Your task to perform on an android device: Search for "panasonic triple a" on costco, select the first entry, and add it to the cart. Image 0: 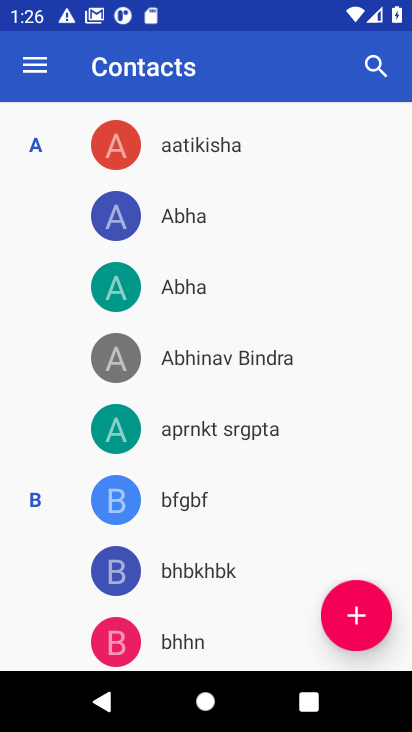
Step 0: press home button
Your task to perform on an android device: Search for "panasonic triple a" on costco, select the first entry, and add it to the cart. Image 1: 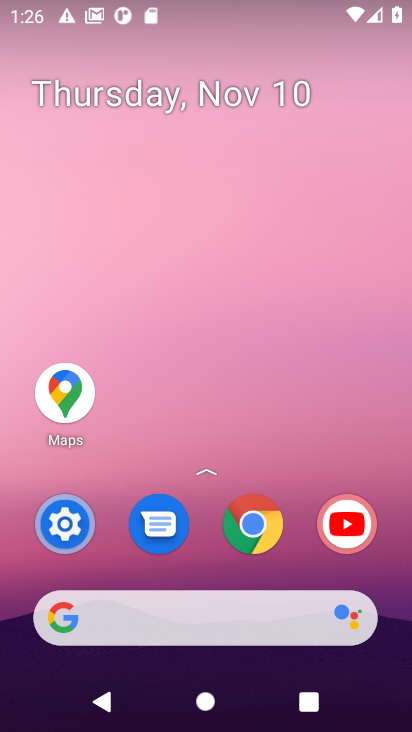
Step 1: click (261, 522)
Your task to perform on an android device: Search for "panasonic triple a" on costco, select the first entry, and add it to the cart. Image 2: 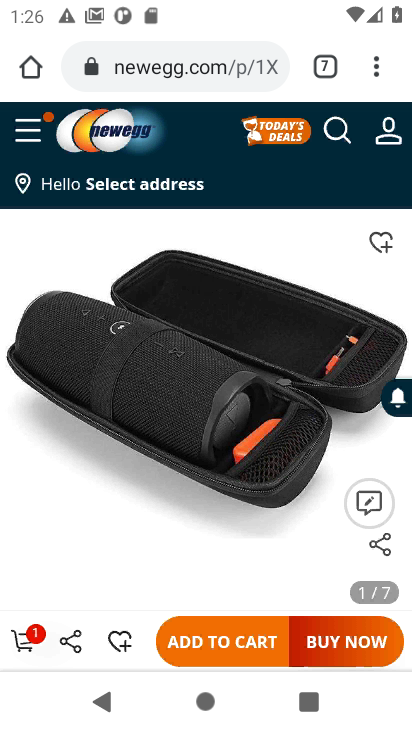
Step 2: click (329, 68)
Your task to perform on an android device: Search for "panasonic triple a" on costco, select the first entry, and add it to the cart. Image 3: 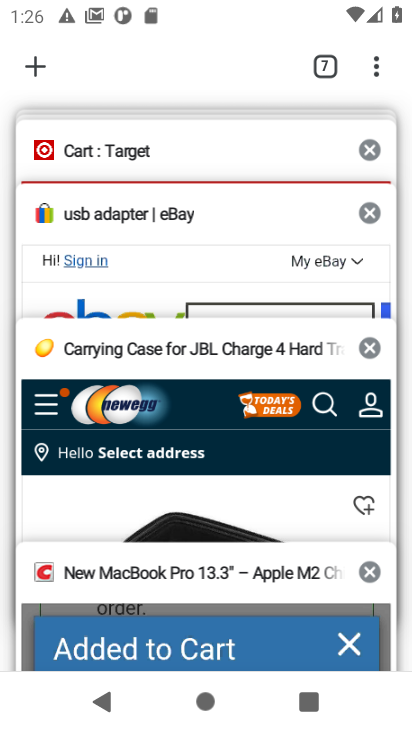
Step 3: click (196, 571)
Your task to perform on an android device: Search for "panasonic triple a" on costco, select the first entry, and add it to the cart. Image 4: 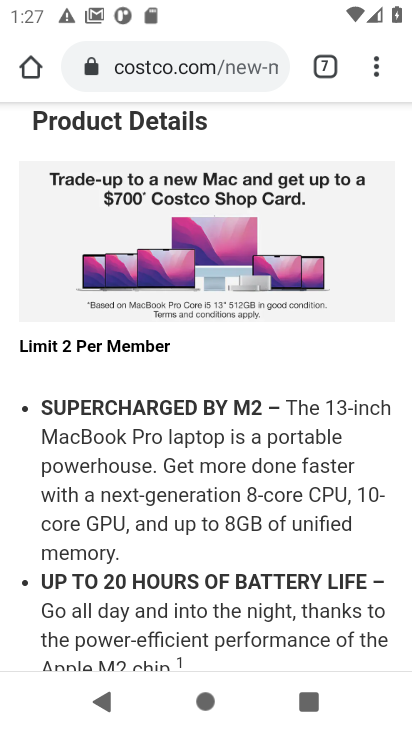
Step 4: drag from (243, 120) to (167, 420)
Your task to perform on an android device: Search for "panasonic triple a" on costco, select the first entry, and add it to the cart. Image 5: 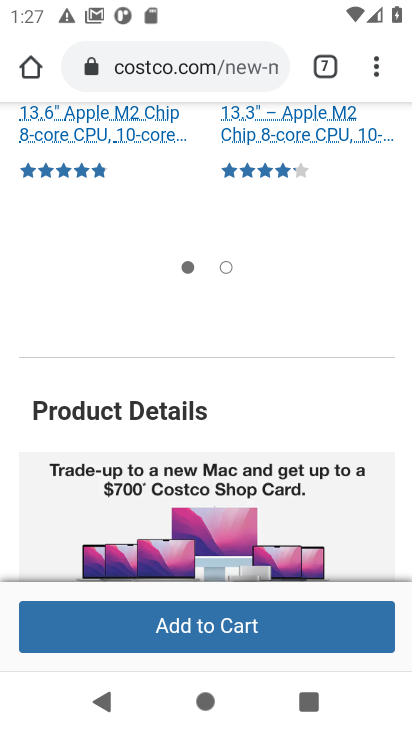
Step 5: drag from (164, 192) to (97, 490)
Your task to perform on an android device: Search for "panasonic triple a" on costco, select the first entry, and add it to the cart. Image 6: 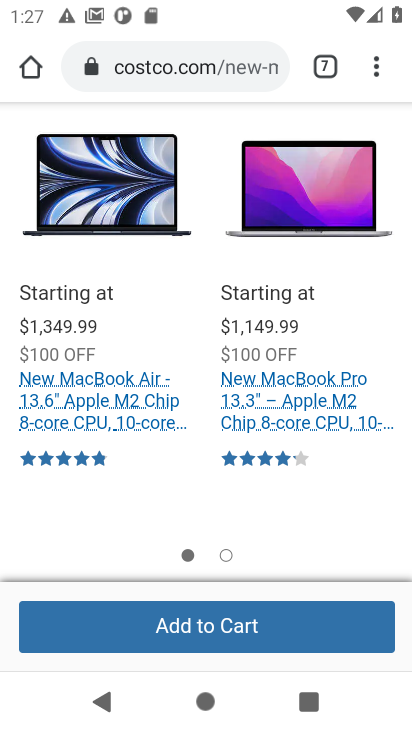
Step 6: drag from (210, 177) to (143, 534)
Your task to perform on an android device: Search for "panasonic triple a" on costco, select the first entry, and add it to the cart. Image 7: 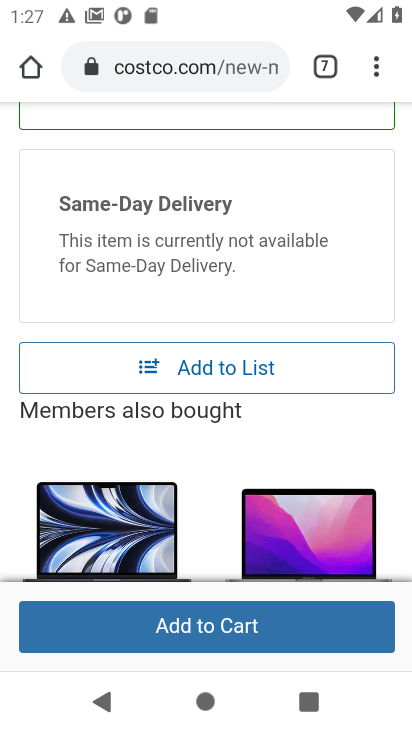
Step 7: drag from (257, 165) to (197, 408)
Your task to perform on an android device: Search for "panasonic triple a" on costco, select the first entry, and add it to the cart. Image 8: 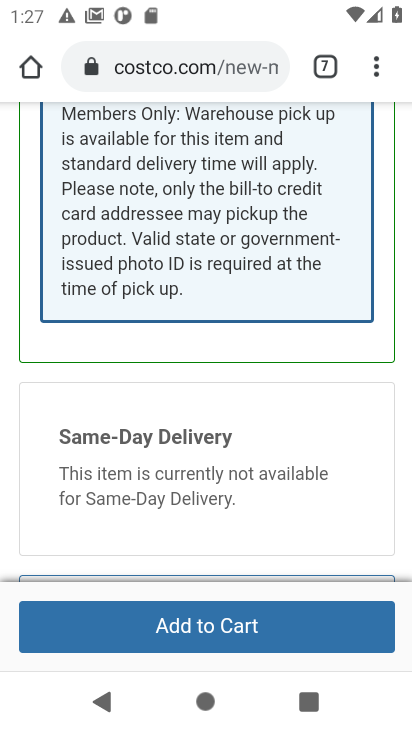
Step 8: drag from (381, 186) to (259, 720)
Your task to perform on an android device: Search for "panasonic triple a" on costco, select the first entry, and add it to the cart. Image 9: 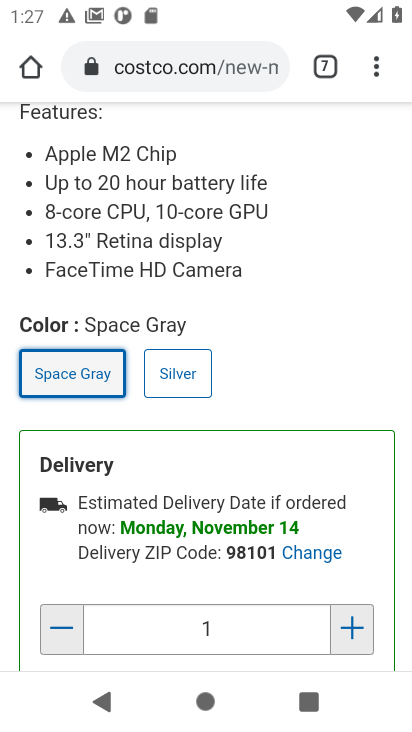
Step 9: drag from (335, 195) to (322, 721)
Your task to perform on an android device: Search for "panasonic triple a" on costco, select the first entry, and add it to the cart. Image 10: 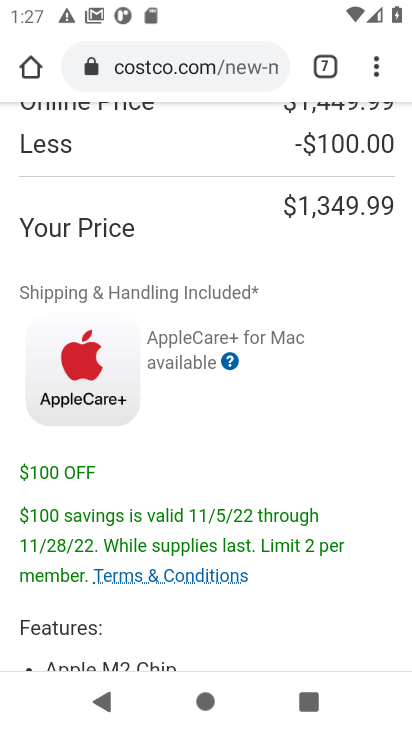
Step 10: drag from (228, 143) to (250, 500)
Your task to perform on an android device: Search for "panasonic triple a" on costco, select the first entry, and add it to the cart. Image 11: 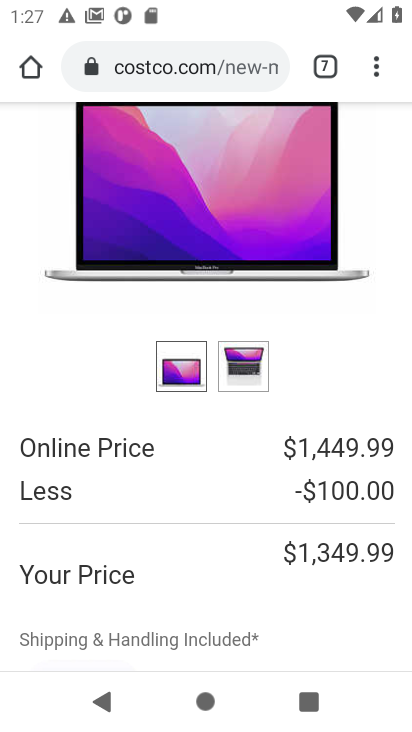
Step 11: drag from (363, 164) to (318, 681)
Your task to perform on an android device: Search for "panasonic triple a" on costco, select the first entry, and add it to the cart. Image 12: 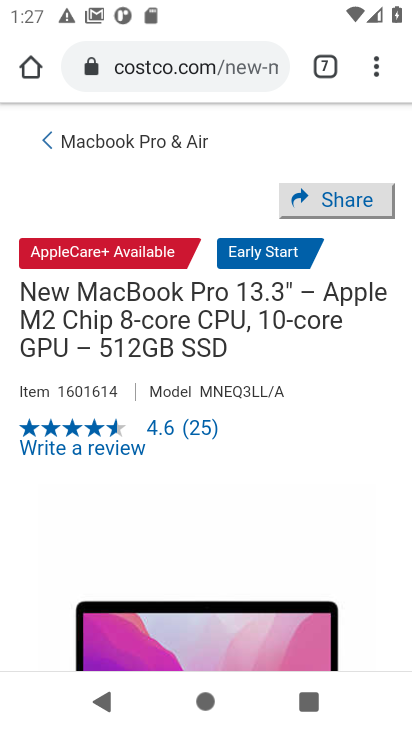
Step 12: drag from (316, 125) to (346, 683)
Your task to perform on an android device: Search for "panasonic triple a" on costco, select the first entry, and add it to the cart. Image 13: 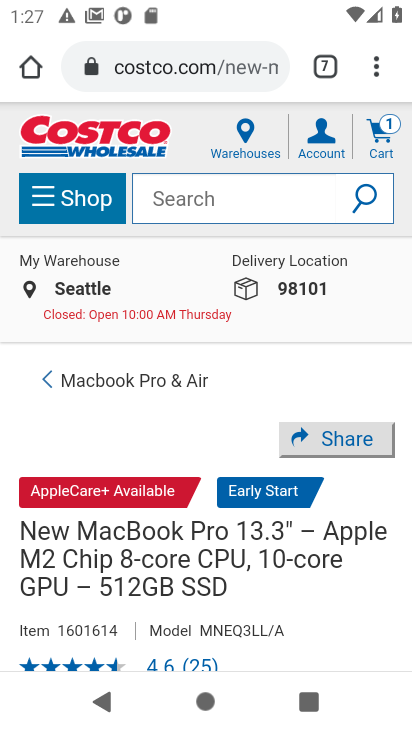
Step 13: click (225, 192)
Your task to perform on an android device: Search for "panasonic triple a" on costco, select the first entry, and add it to the cart. Image 14: 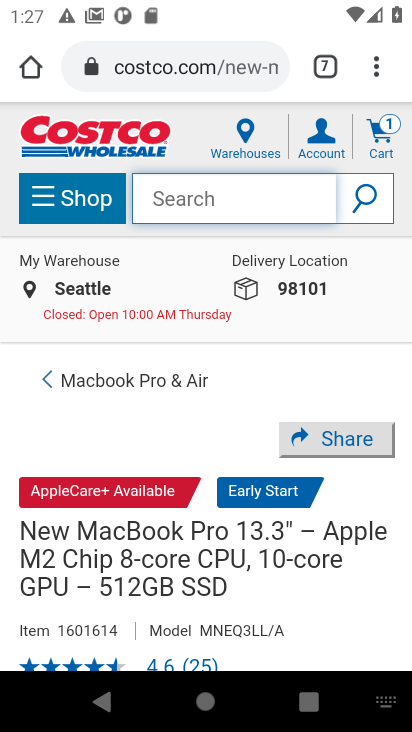
Step 14: type "panasonic triple a"
Your task to perform on an android device: Search for "panasonic triple a" on costco, select the first entry, and add it to the cart. Image 15: 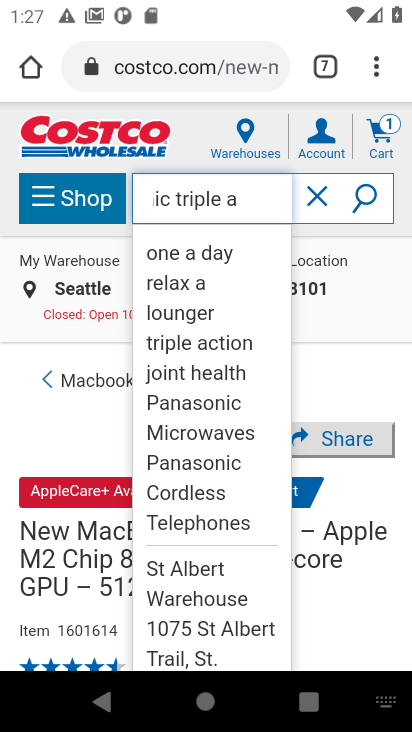
Step 15: click (368, 199)
Your task to perform on an android device: Search for "panasonic triple a" on costco, select the first entry, and add it to the cart. Image 16: 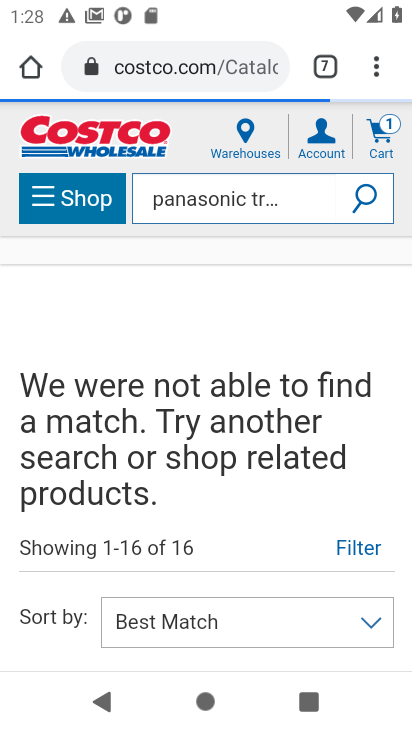
Step 16: drag from (264, 565) to (357, 181)
Your task to perform on an android device: Search for "panasonic triple a" on costco, select the first entry, and add it to the cart. Image 17: 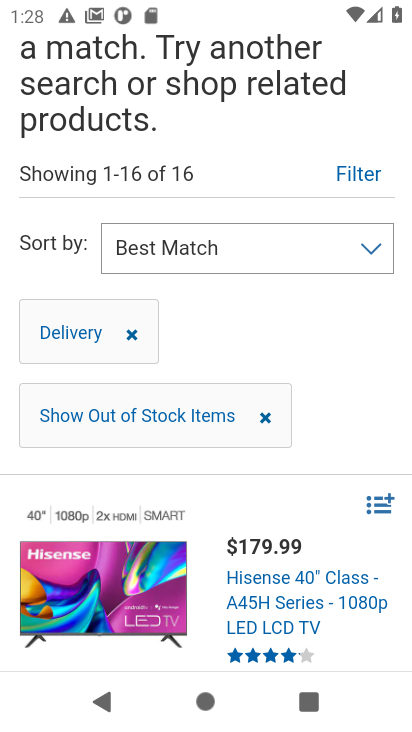
Step 17: drag from (268, 471) to (355, 74)
Your task to perform on an android device: Search for "panasonic triple a" on costco, select the first entry, and add it to the cart. Image 18: 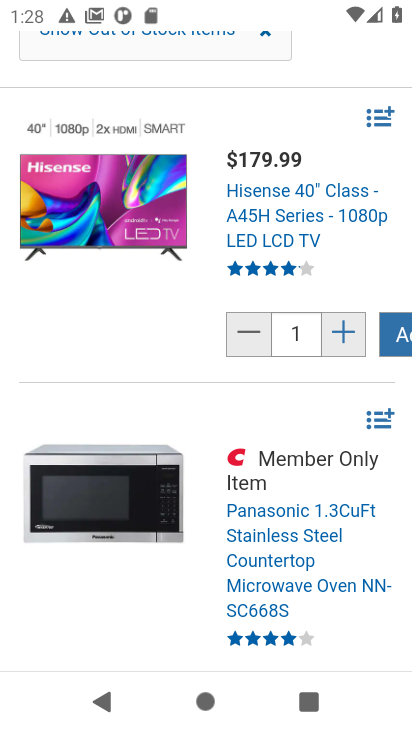
Step 18: drag from (130, 591) to (206, 126)
Your task to perform on an android device: Search for "panasonic triple a" on costco, select the first entry, and add it to the cart. Image 19: 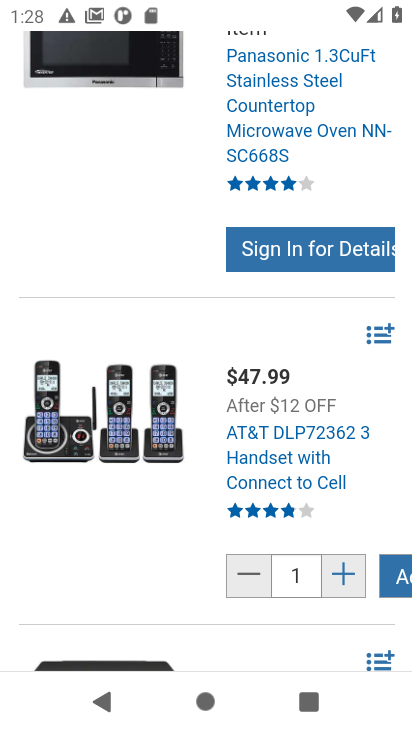
Step 19: click (271, 143)
Your task to perform on an android device: Search for "panasonic triple a" on costco, select the first entry, and add it to the cart. Image 20: 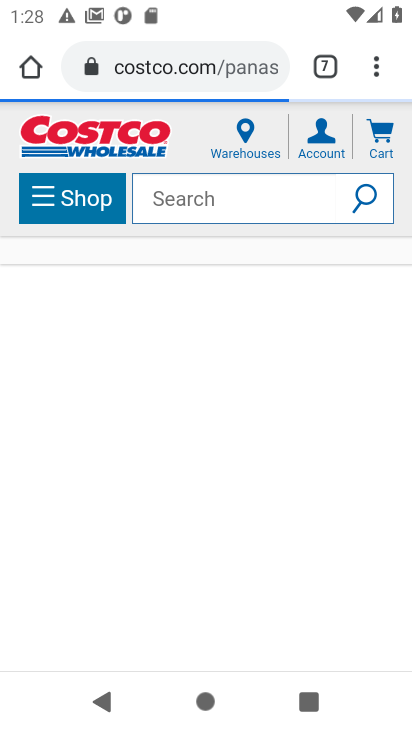
Step 20: click (139, 552)
Your task to perform on an android device: Search for "panasonic triple a" on costco, select the first entry, and add it to the cart. Image 21: 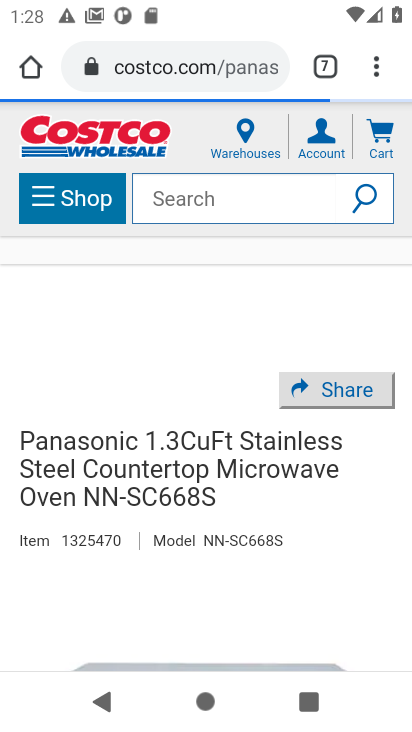
Step 21: task complete